Your task to perform on an android device: toggle data saver in the chrome app Image 0: 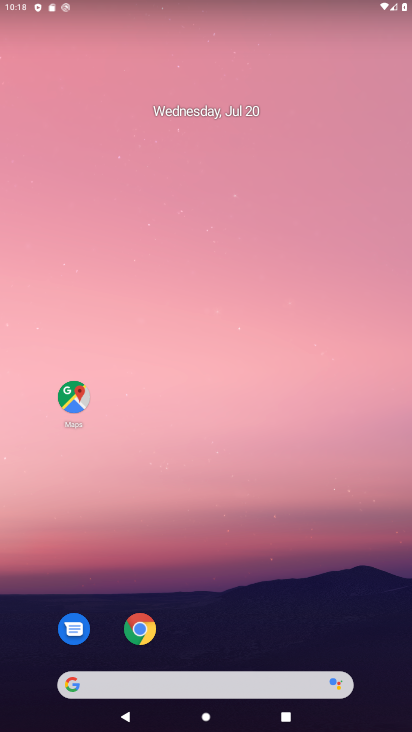
Step 0: drag from (195, 479) to (208, 65)
Your task to perform on an android device: toggle data saver in the chrome app Image 1: 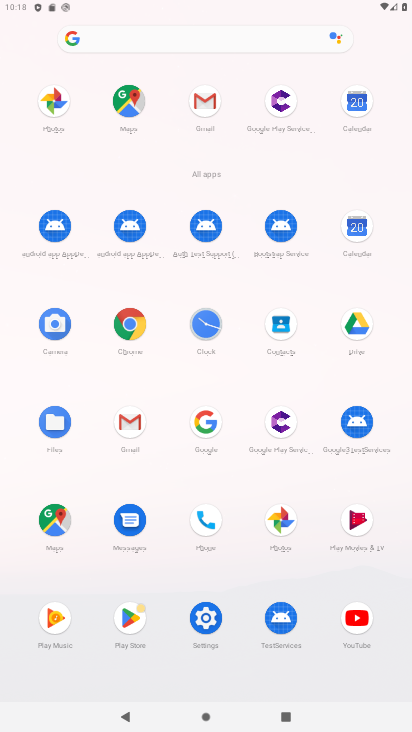
Step 1: click (128, 335)
Your task to perform on an android device: toggle data saver in the chrome app Image 2: 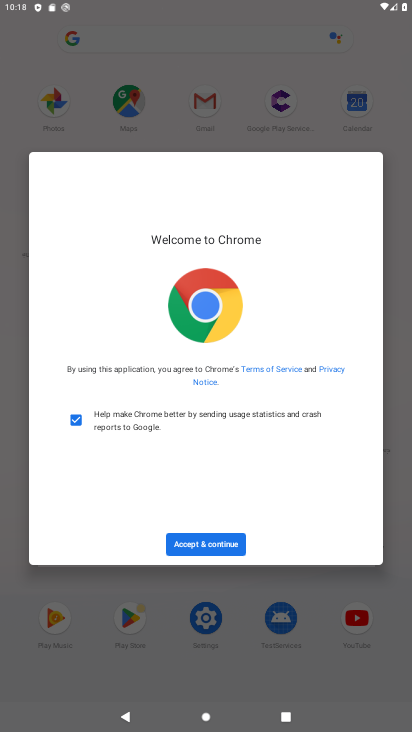
Step 2: click (186, 533)
Your task to perform on an android device: toggle data saver in the chrome app Image 3: 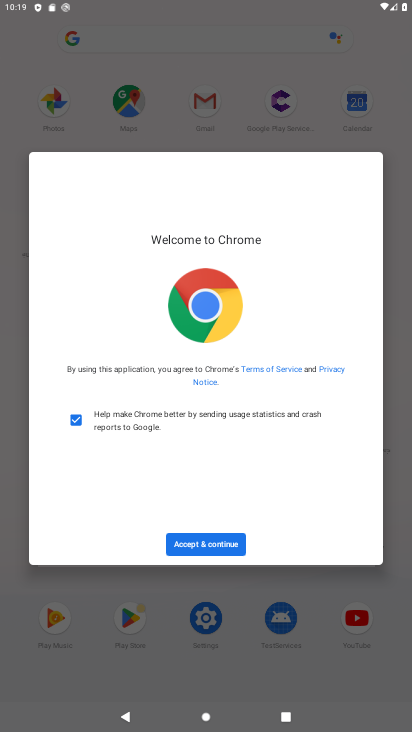
Step 3: click (197, 541)
Your task to perform on an android device: toggle data saver in the chrome app Image 4: 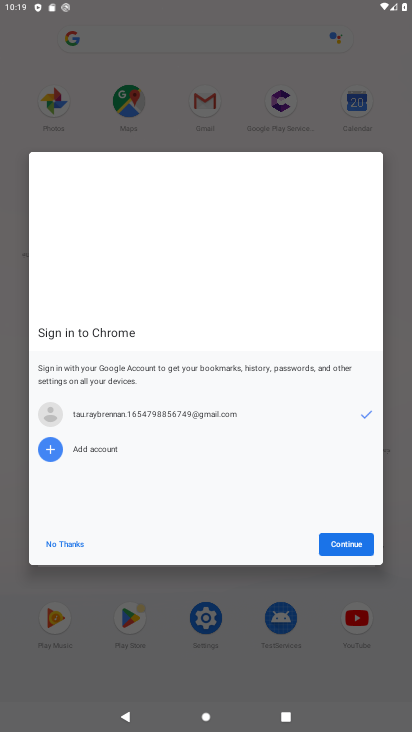
Step 4: click (53, 539)
Your task to perform on an android device: toggle data saver in the chrome app Image 5: 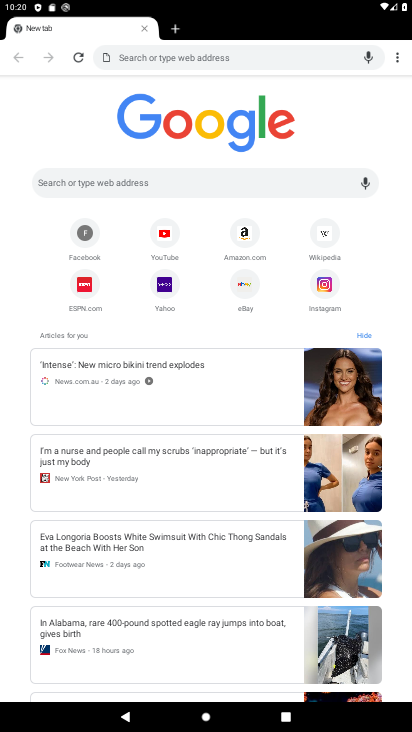
Step 5: drag from (398, 58) to (288, 264)
Your task to perform on an android device: toggle data saver in the chrome app Image 6: 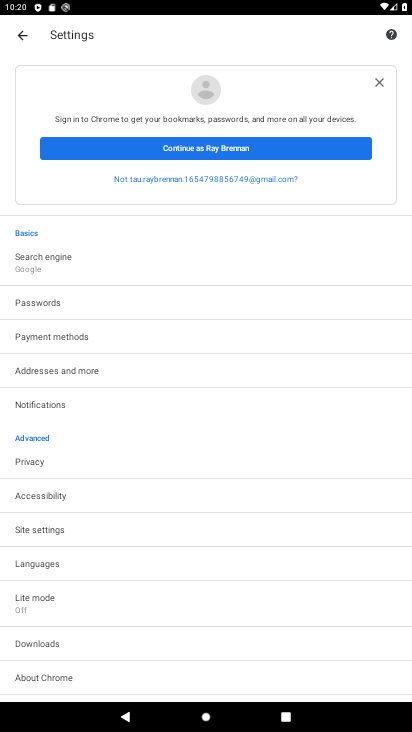
Step 6: click (51, 619)
Your task to perform on an android device: toggle data saver in the chrome app Image 7: 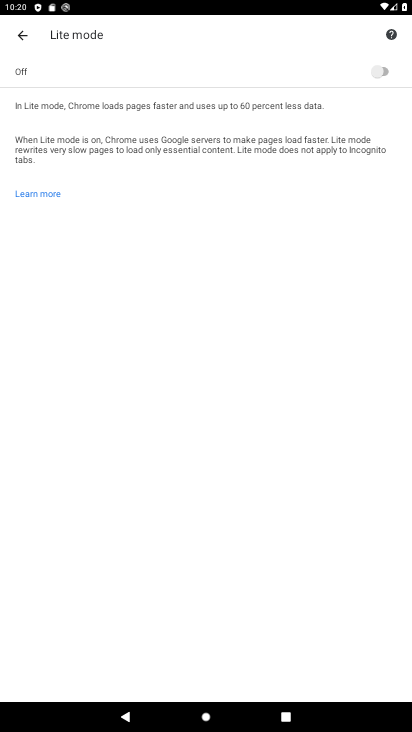
Step 7: click (383, 65)
Your task to perform on an android device: toggle data saver in the chrome app Image 8: 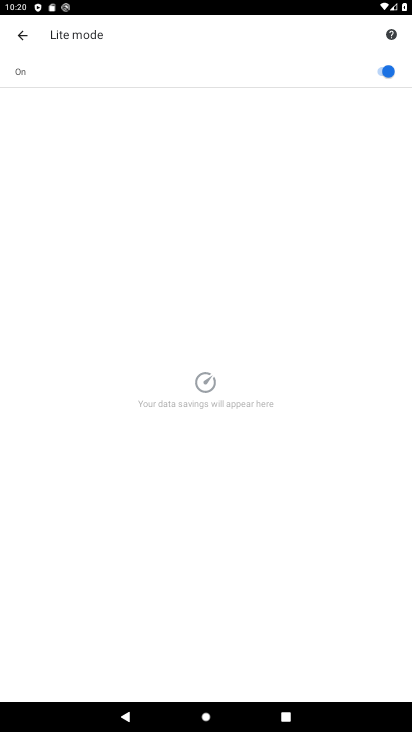
Step 8: task complete